Your task to perform on an android device: Open eBay Image 0: 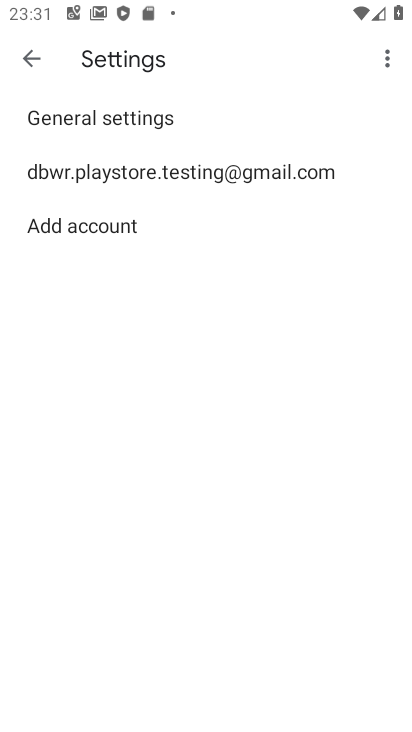
Step 0: press home button
Your task to perform on an android device: Open eBay Image 1: 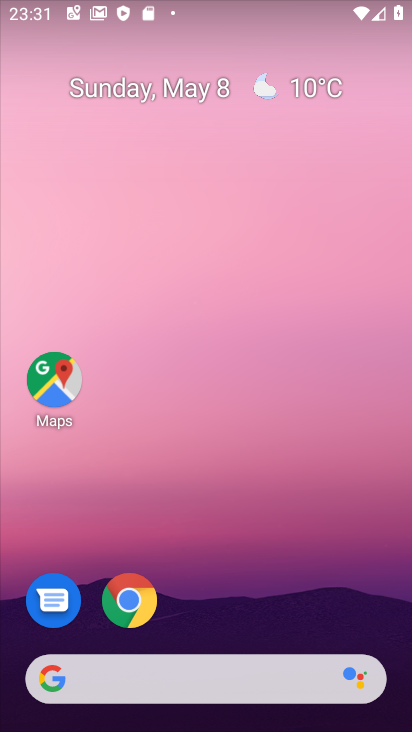
Step 1: click (131, 600)
Your task to perform on an android device: Open eBay Image 2: 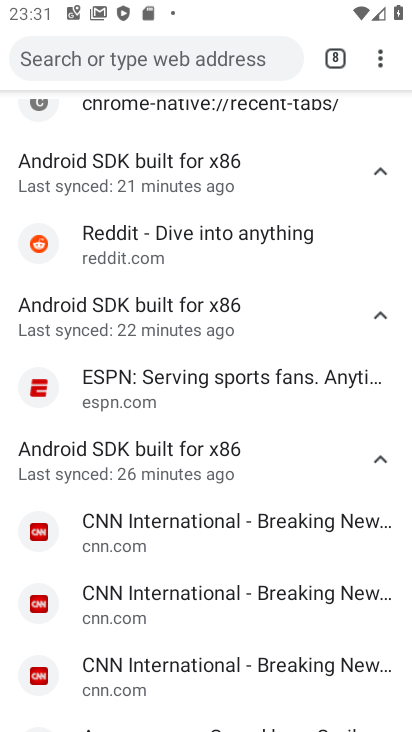
Step 2: click (347, 59)
Your task to perform on an android device: Open eBay Image 3: 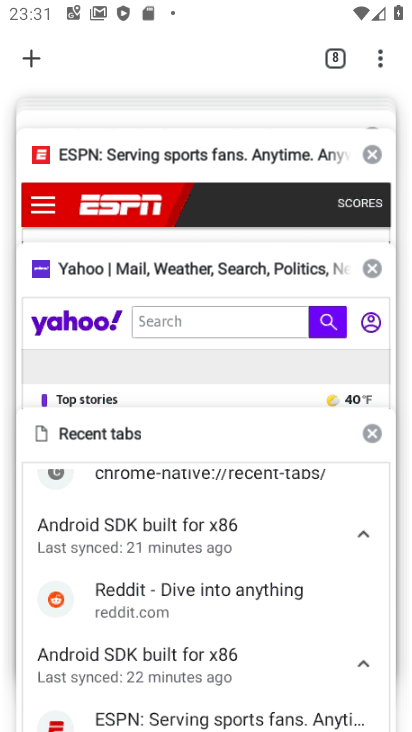
Step 3: click (32, 76)
Your task to perform on an android device: Open eBay Image 4: 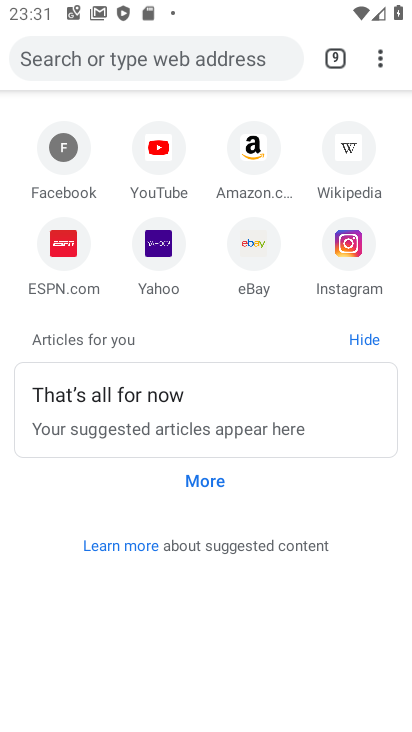
Step 4: click (251, 252)
Your task to perform on an android device: Open eBay Image 5: 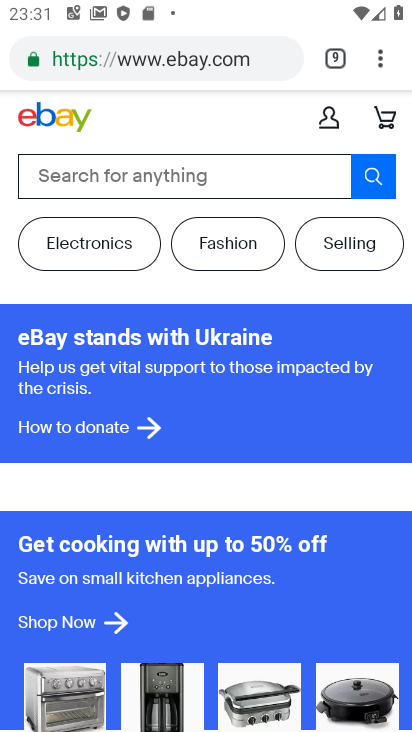
Step 5: task complete